Your task to perform on an android device: uninstall "Grab" Image 0: 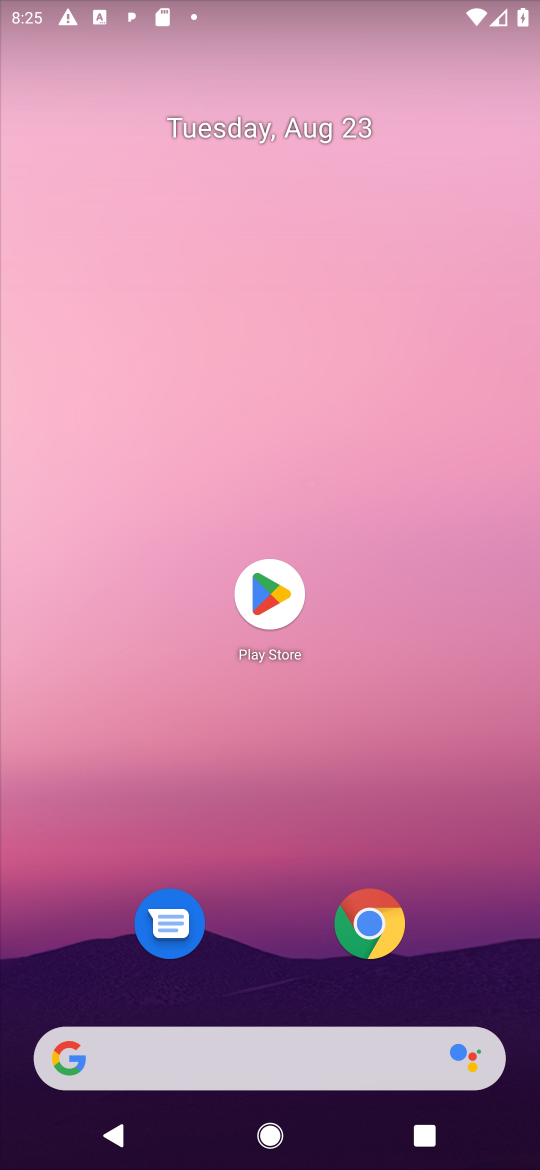
Step 0: press home button
Your task to perform on an android device: uninstall "Grab" Image 1: 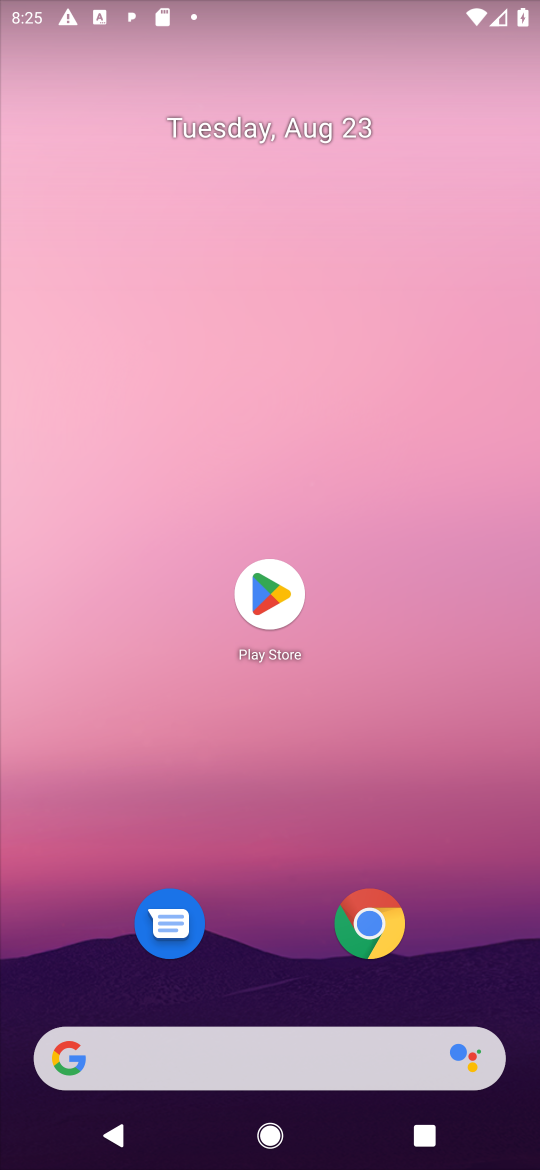
Step 1: click (271, 602)
Your task to perform on an android device: uninstall "Grab" Image 2: 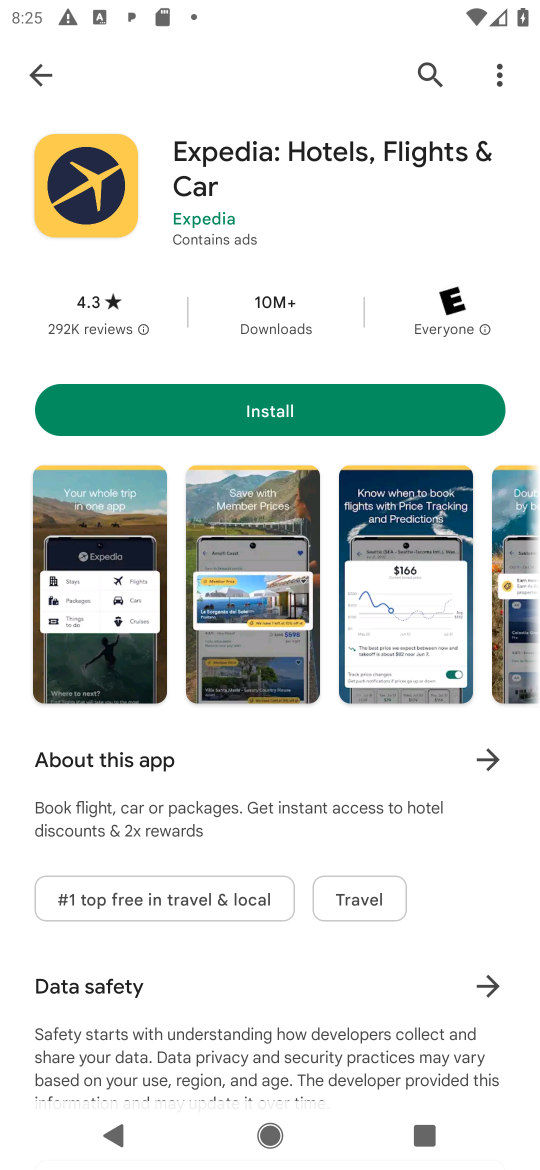
Step 2: click (426, 78)
Your task to perform on an android device: uninstall "Grab" Image 3: 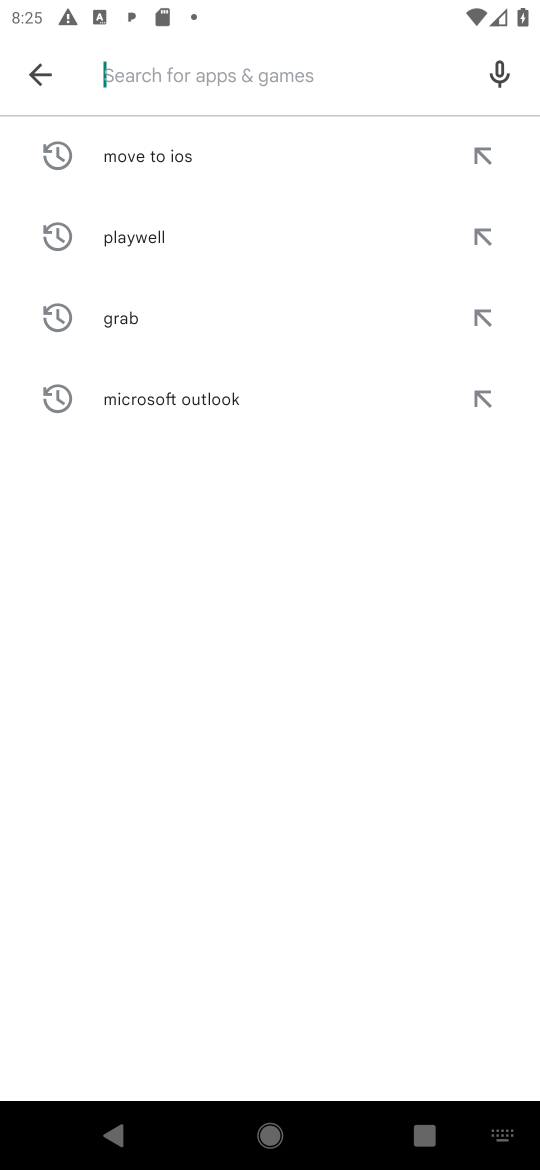
Step 3: type "Grab"
Your task to perform on an android device: uninstall "Grab" Image 4: 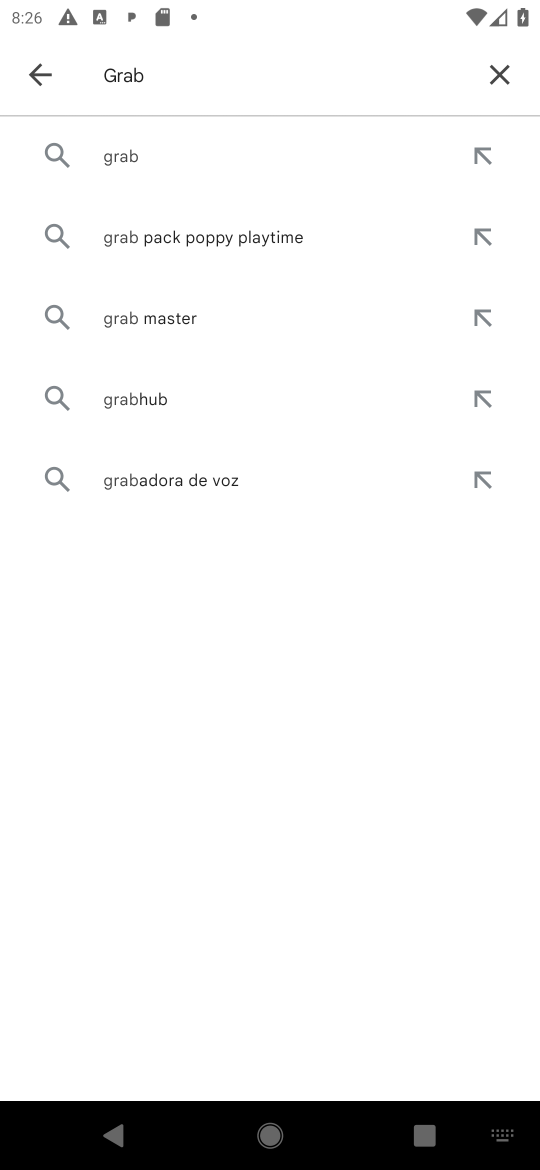
Step 4: click (114, 159)
Your task to perform on an android device: uninstall "Grab" Image 5: 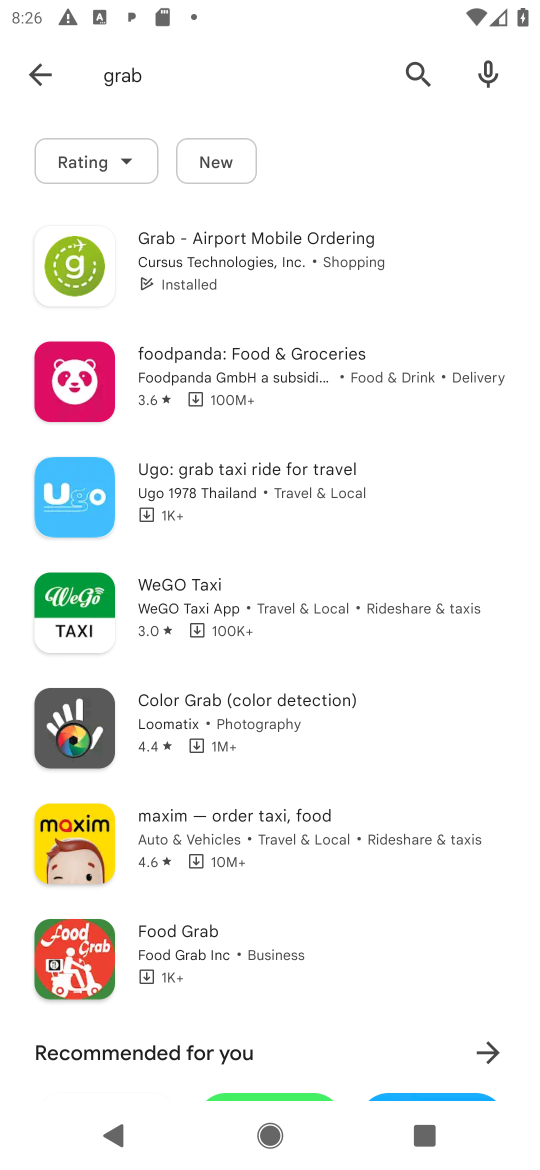
Step 5: click (132, 235)
Your task to perform on an android device: uninstall "Grab" Image 6: 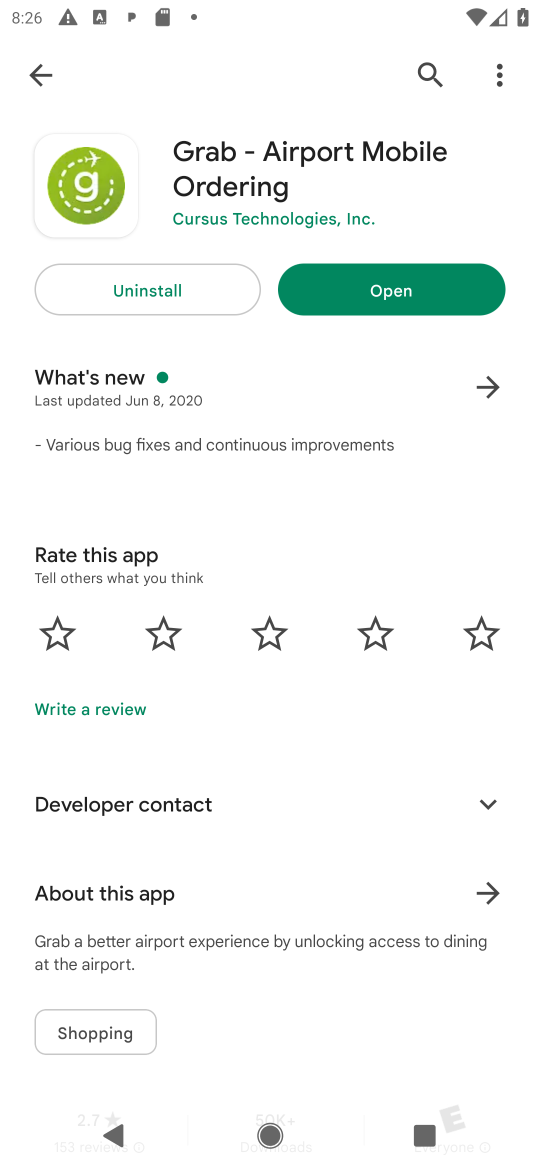
Step 6: click (170, 286)
Your task to perform on an android device: uninstall "Grab" Image 7: 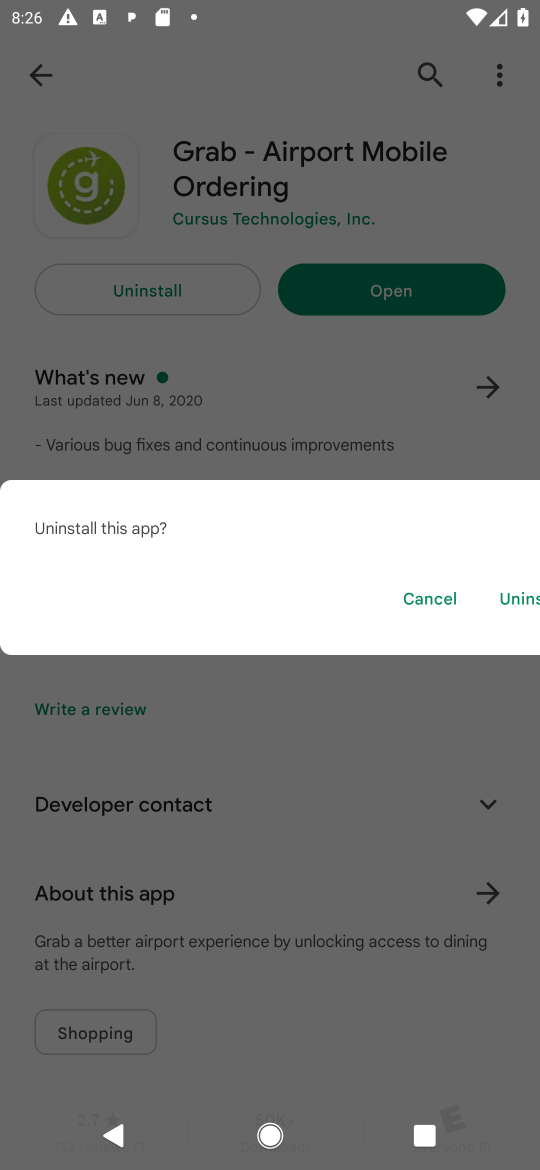
Step 7: click (515, 596)
Your task to perform on an android device: uninstall "Grab" Image 8: 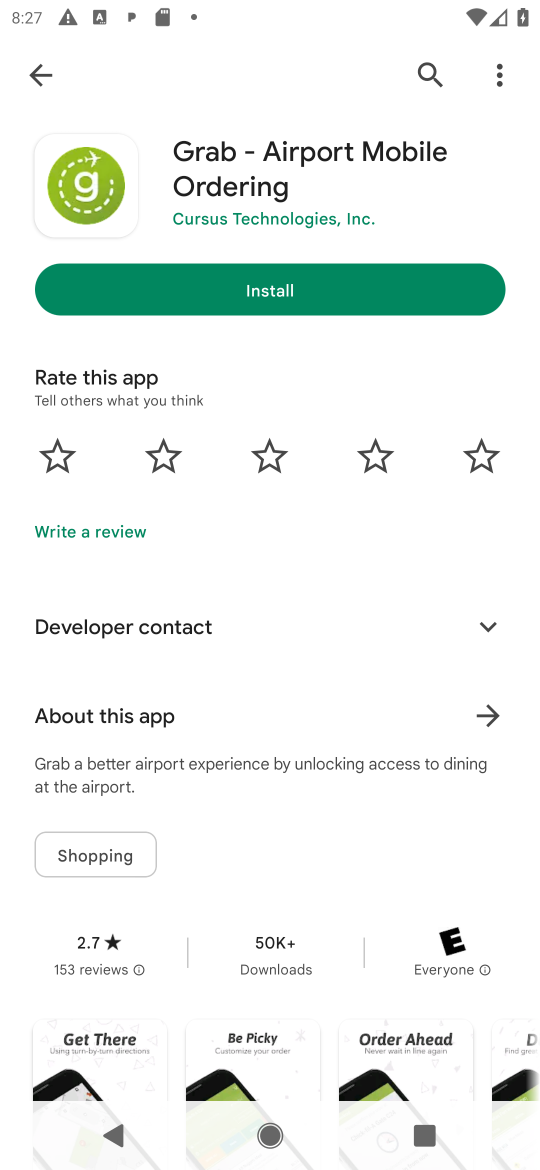
Step 8: task complete